Your task to perform on an android device: Open my contact list Image 0: 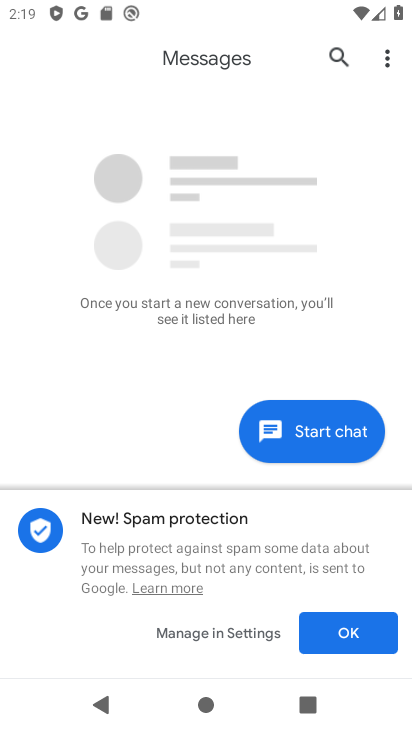
Step 0: press home button
Your task to perform on an android device: Open my contact list Image 1: 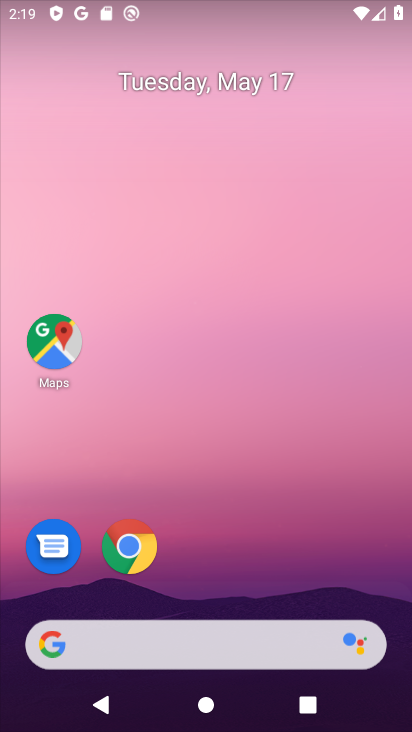
Step 1: drag from (254, 576) to (264, 33)
Your task to perform on an android device: Open my contact list Image 2: 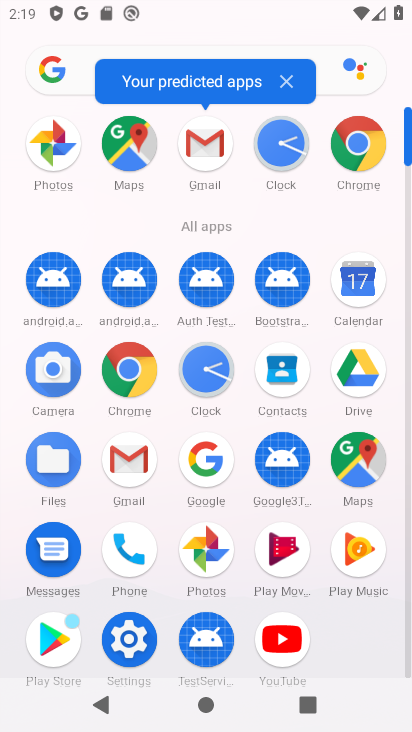
Step 2: click (275, 379)
Your task to perform on an android device: Open my contact list Image 3: 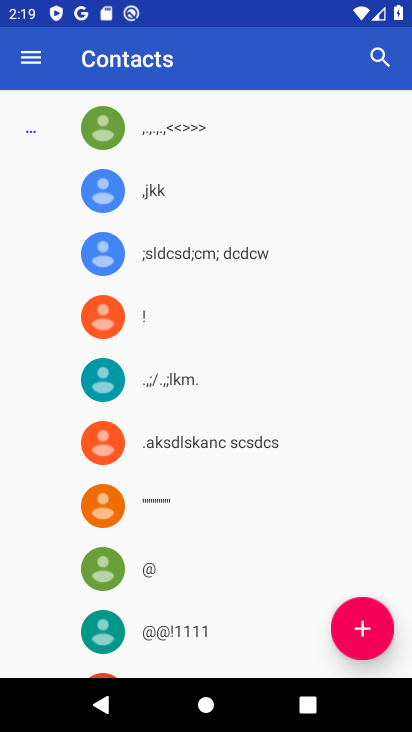
Step 3: task complete